Your task to perform on an android device: Open Google Chrome and click the shortcut for Amazon.com Image 0: 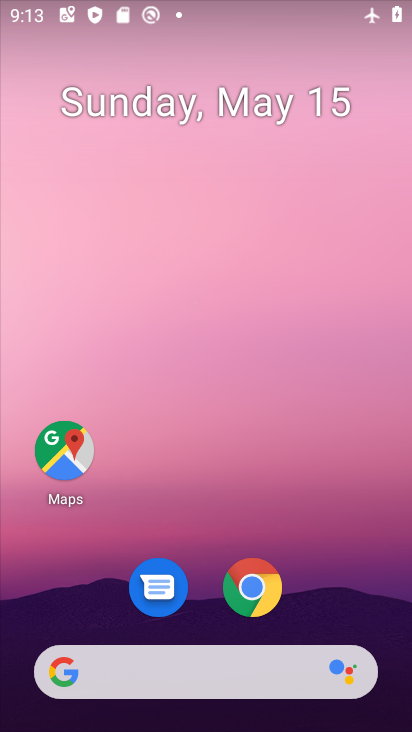
Step 0: drag from (367, 645) to (289, 88)
Your task to perform on an android device: Open Google Chrome and click the shortcut for Amazon.com Image 1: 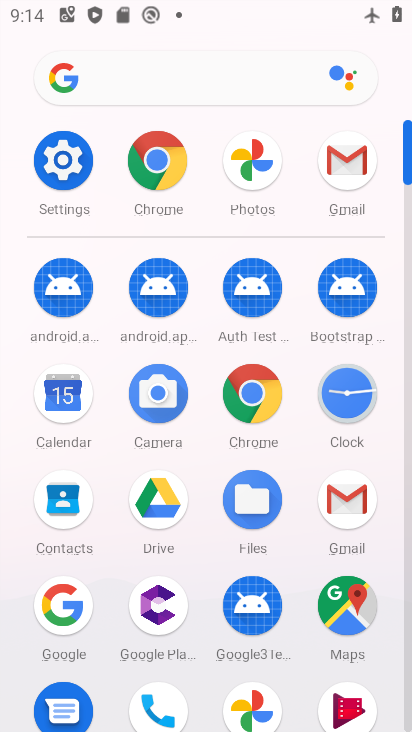
Step 1: click (255, 408)
Your task to perform on an android device: Open Google Chrome and click the shortcut for Amazon.com Image 2: 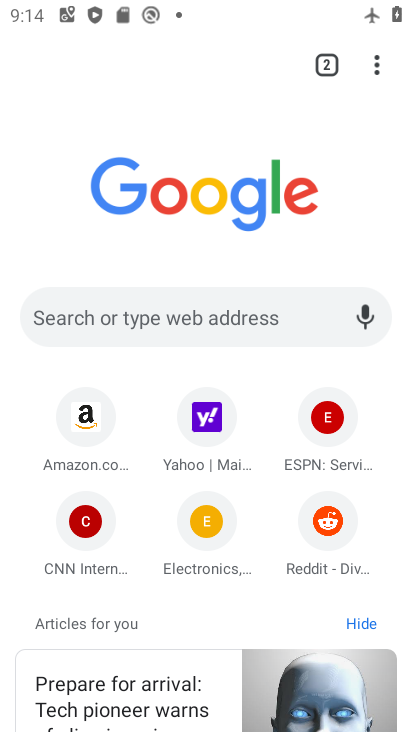
Step 2: click (84, 422)
Your task to perform on an android device: Open Google Chrome and click the shortcut for Amazon.com Image 3: 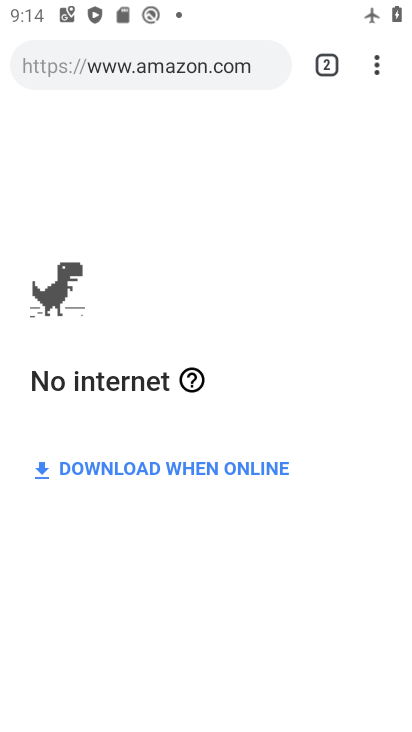
Step 3: task complete